Your task to perform on an android device: Go to Maps Image 0: 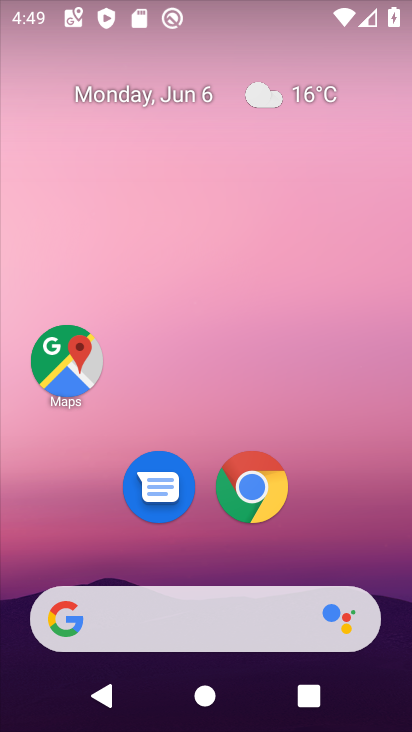
Step 0: click (70, 364)
Your task to perform on an android device: Go to Maps Image 1: 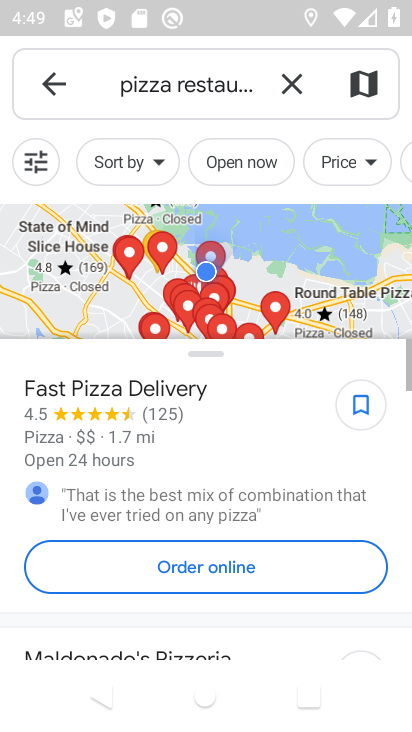
Step 1: click (291, 74)
Your task to perform on an android device: Go to Maps Image 2: 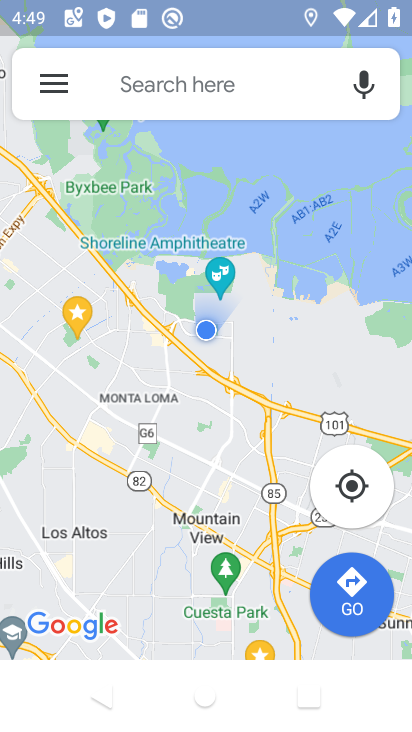
Step 2: task complete